Your task to perform on an android device: open wifi settings Image 0: 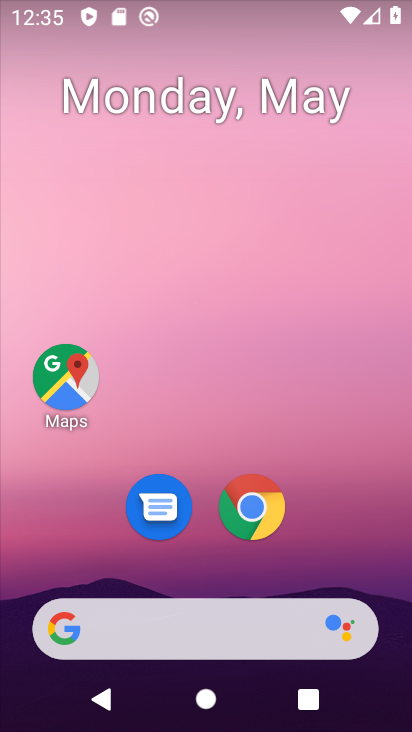
Step 0: drag from (221, 717) to (223, 45)
Your task to perform on an android device: open wifi settings Image 1: 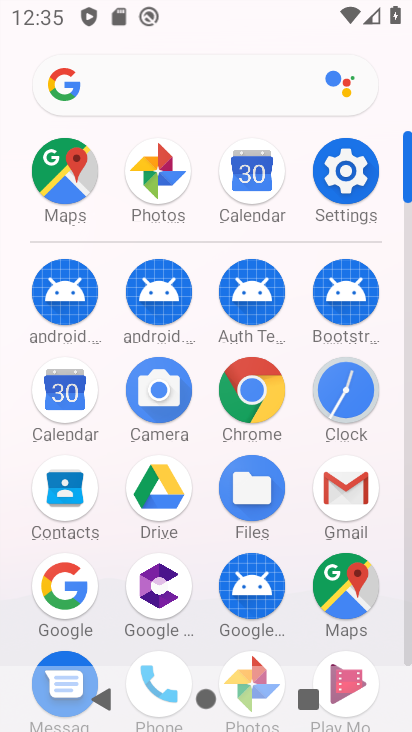
Step 1: click (347, 169)
Your task to perform on an android device: open wifi settings Image 2: 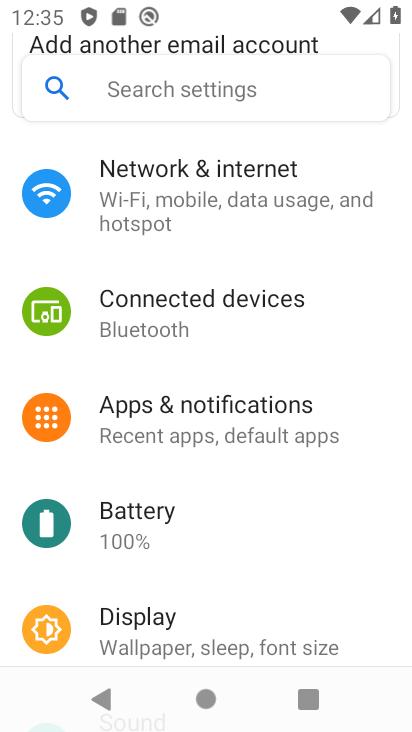
Step 2: drag from (268, 159) to (295, 588)
Your task to perform on an android device: open wifi settings Image 3: 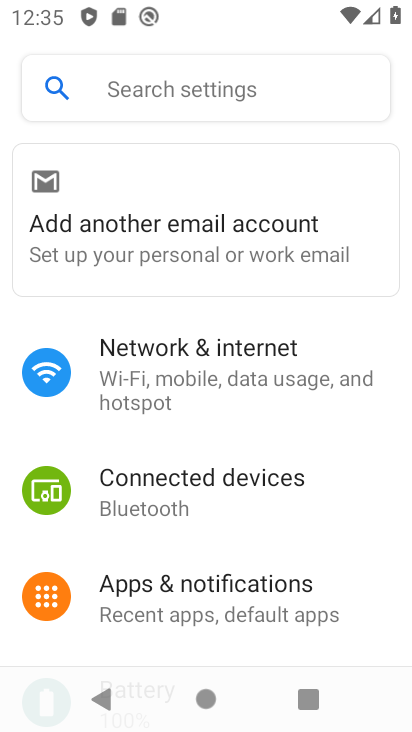
Step 3: click (179, 366)
Your task to perform on an android device: open wifi settings Image 4: 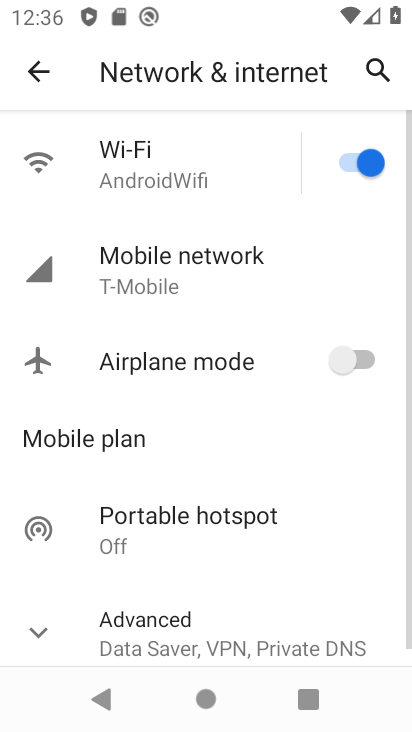
Step 4: click (130, 167)
Your task to perform on an android device: open wifi settings Image 5: 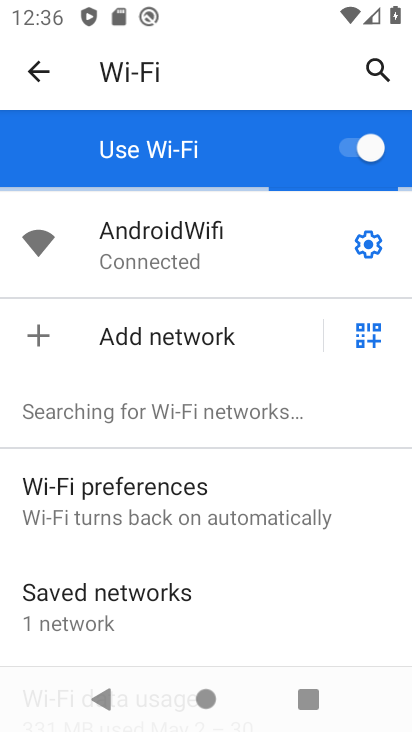
Step 5: task complete